Your task to perform on an android device: Go to accessibility settings Image 0: 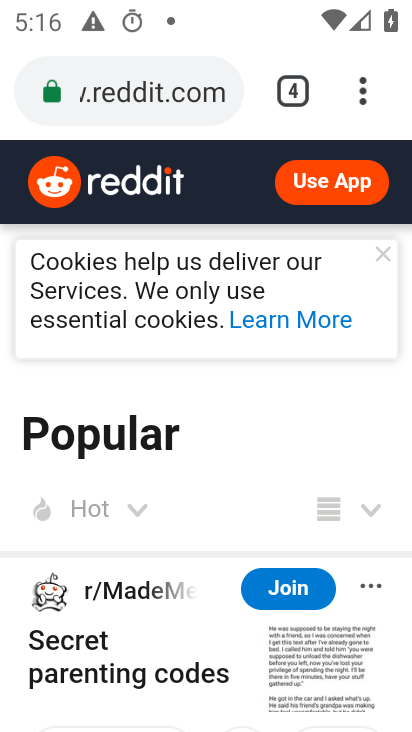
Step 0: press home button
Your task to perform on an android device: Go to accessibility settings Image 1: 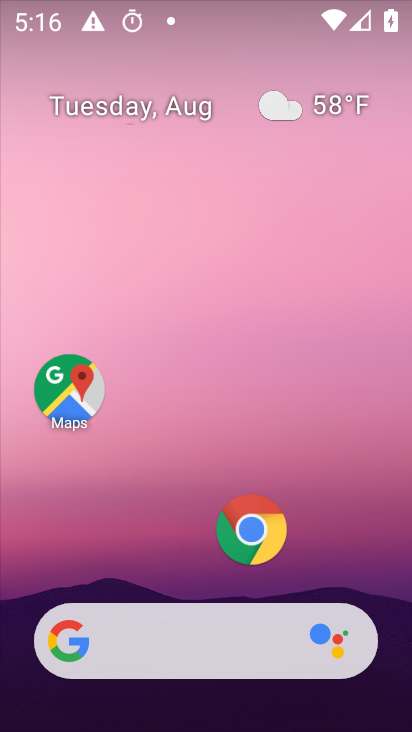
Step 1: drag from (194, 545) to (180, 193)
Your task to perform on an android device: Go to accessibility settings Image 2: 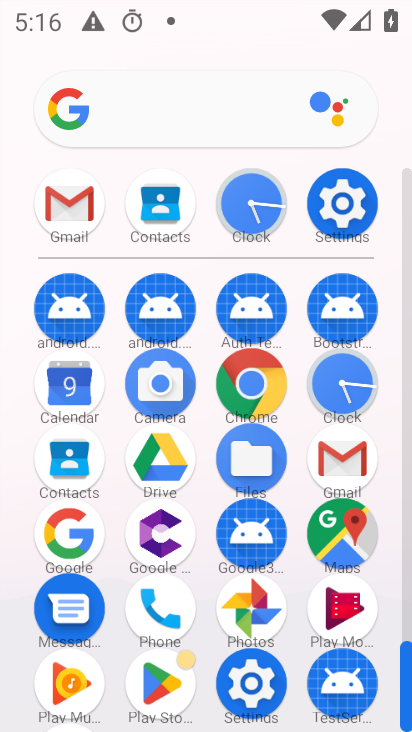
Step 2: click (342, 194)
Your task to perform on an android device: Go to accessibility settings Image 3: 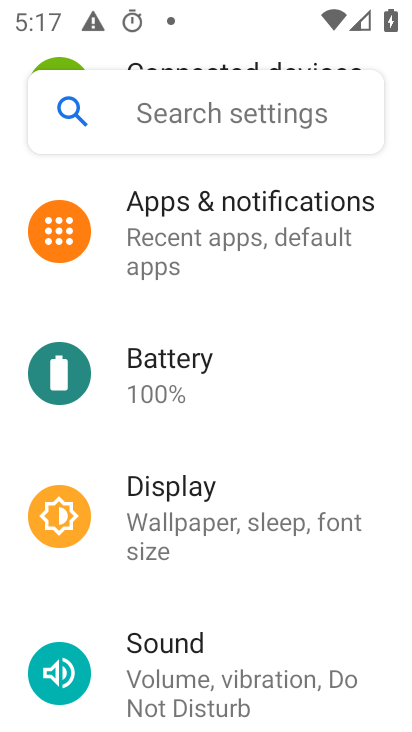
Step 3: drag from (243, 286) to (329, 265)
Your task to perform on an android device: Go to accessibility settings Image 4: 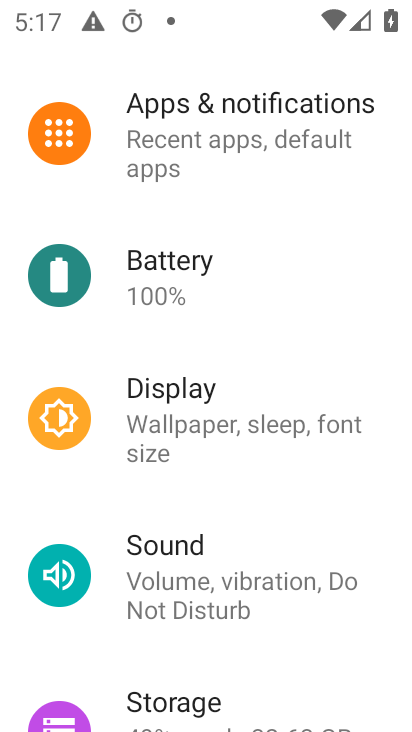
Step 4: drag from (275, 649) to (278, 287)
Your task to perform on an android device: Go to accessibility settings Image 5: 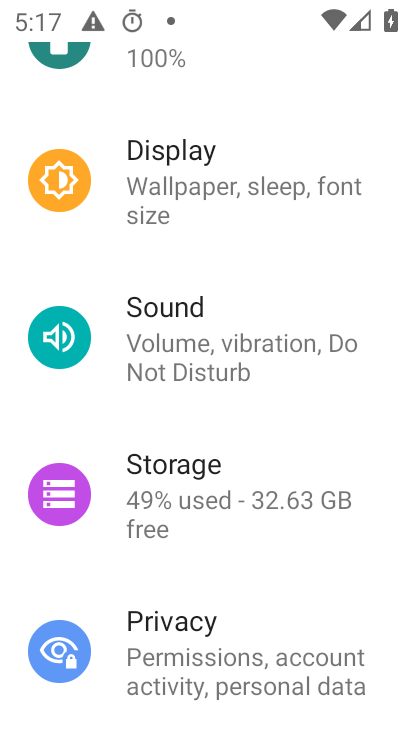
Step 5: drag from (249, 483) to (265, 382)
Your task to perform on an android device: Go to accessibility settings Image 6: 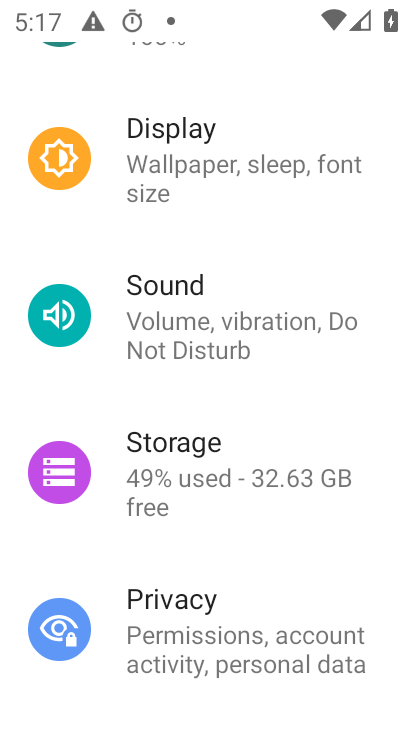
Step 6: drag from (247, 289) to (222, 617)
Your task to perform on an android device: Go to accessibility settings Image 7: 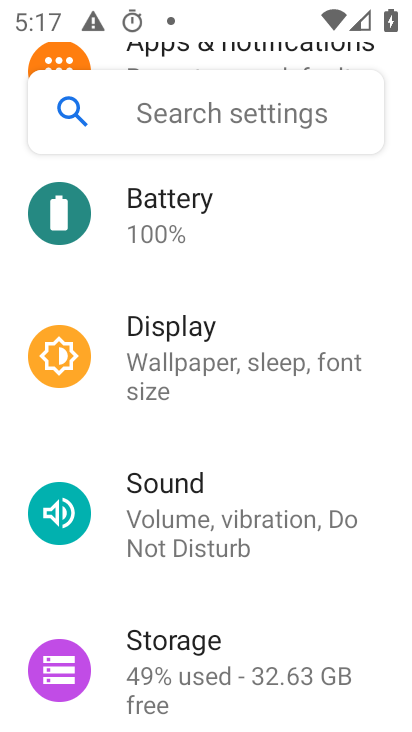
Step 7: drag from (198, 268) to (207, 528)
Your task to perform on an android device: Go to accessibility settings Image 8: 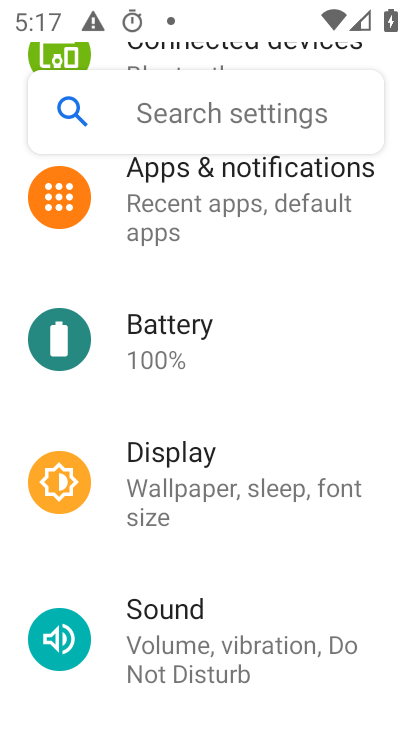
Step 8: drag from (227, 268) to (227, 548)
Your task to perform on an android device: Go to accessibility settings Image 9: 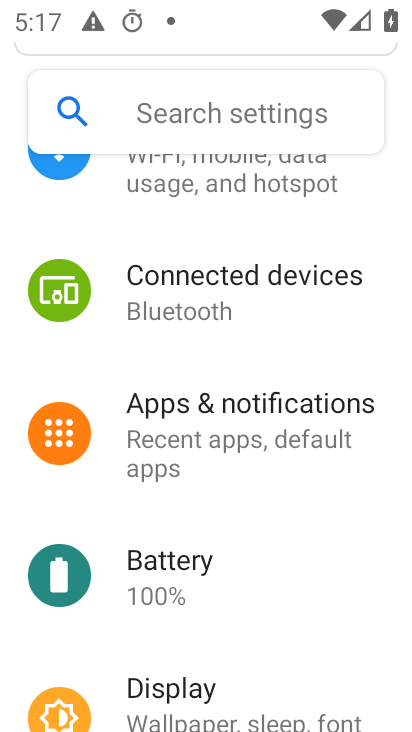
Step 9: drag from (203, 303) to (204, 539)
Your task to perform on an android device: Go to accessibility settings Image 10: 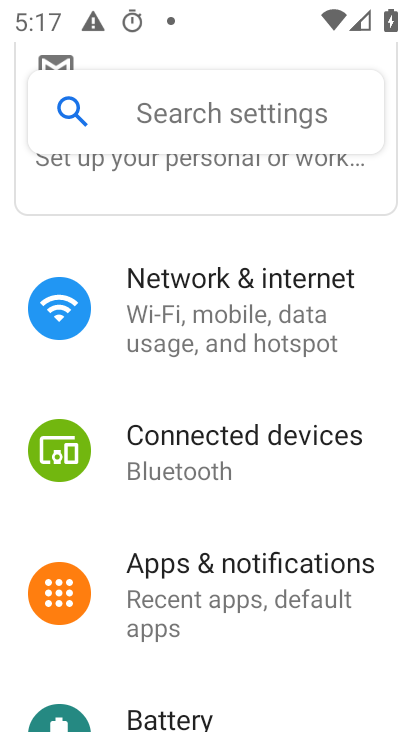
Step 10: drag from (207, 632) to (212, 296)
Your task to perform on an android device: Go to accessibility settings Image 11: 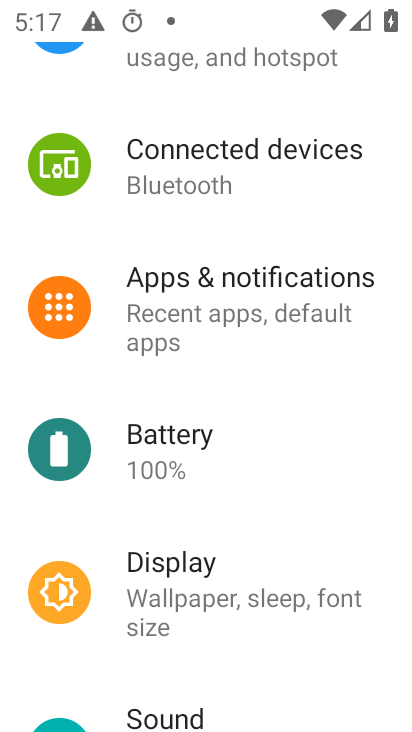
Step 11: drag from (225, 505) to (252, 312)
Your task to perform on an android device: Go to accessibility settings Image 12: 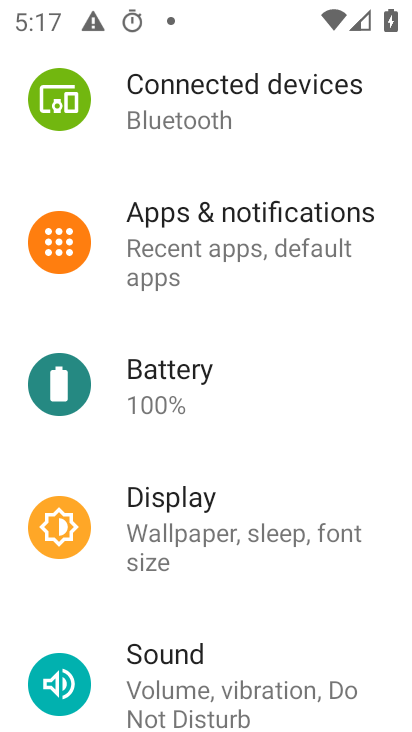
Step 12: drag from (257, 620) to (258, 251)
Your task to perform on an android device: Go to accessibility settings Image 13: 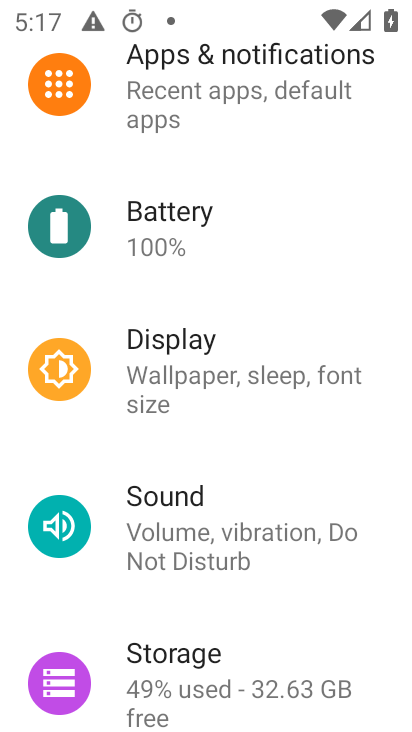
Step 13: drag from (261, 577) to (265, 193)
Your task to perform on an android device: Go to accessibility settings Image 14: 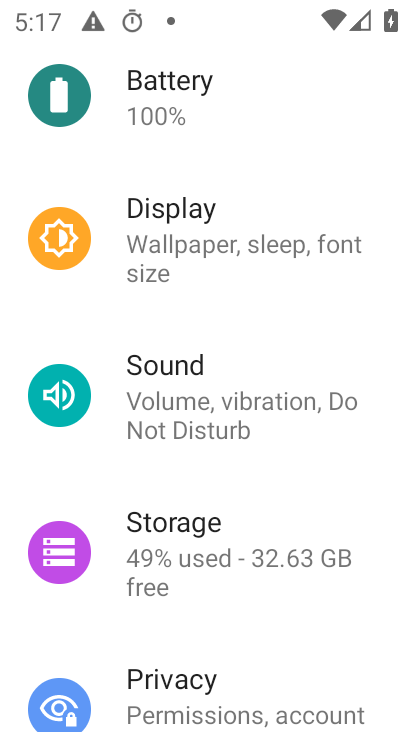
Step 14: drag from (261, 539) to (261, 216)
Your task to perform on an android device: Go to accessibility settings Image 15: 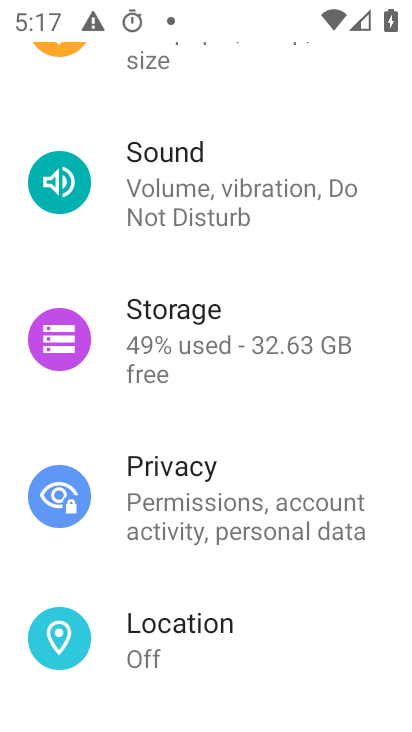
Step 15: drag from (204, 604) to (211, 208)
Your task to perform on an android device: Go to accessibility settings Image 16: 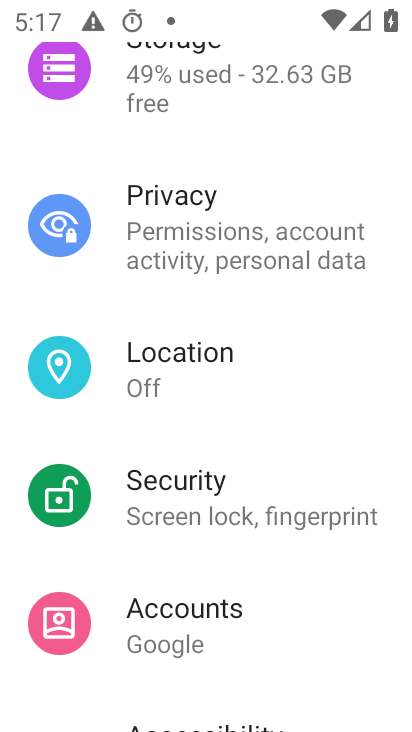
Step 16: drag from (213, 644) to (244, 291)
Your task to perform on an android device: Go to accessibility settings Image 17: 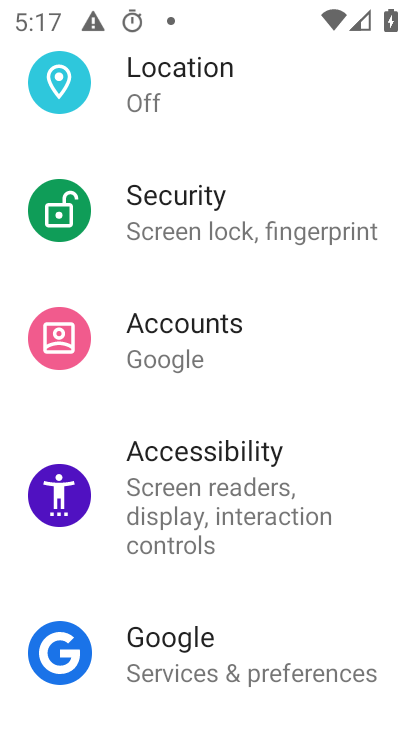
Step 17: click (244, 503)
Your task to perform on an android device: Go to accessibility settings Image 18: 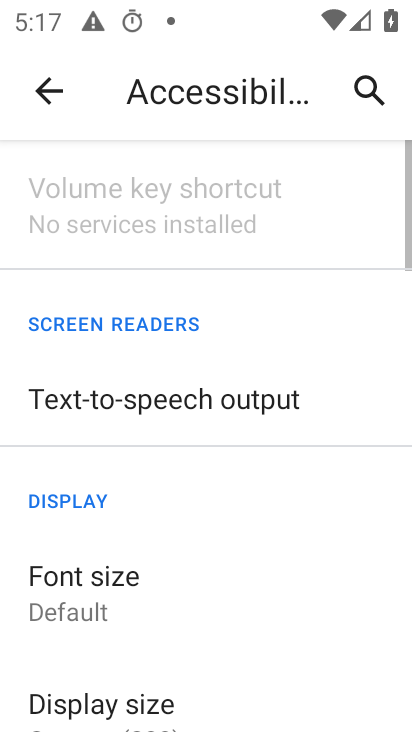
Step 18: task complete